Your task to perform on an android device: Go to battery settings Image 0: 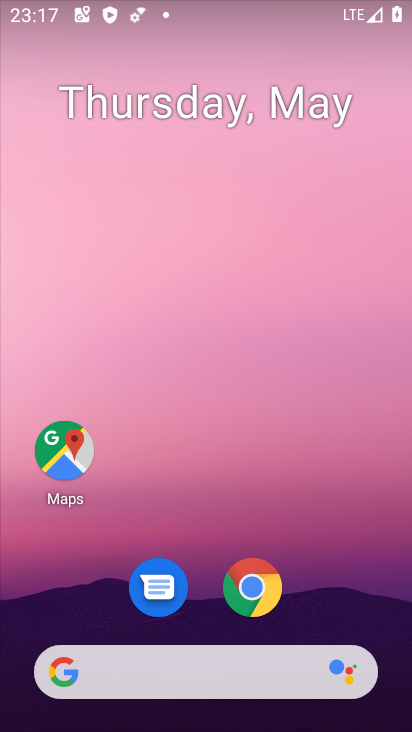
Step 0: drag from (80, 637) to (185, 142)
Your task to perform on an android device: Go to battery settings Image 1: 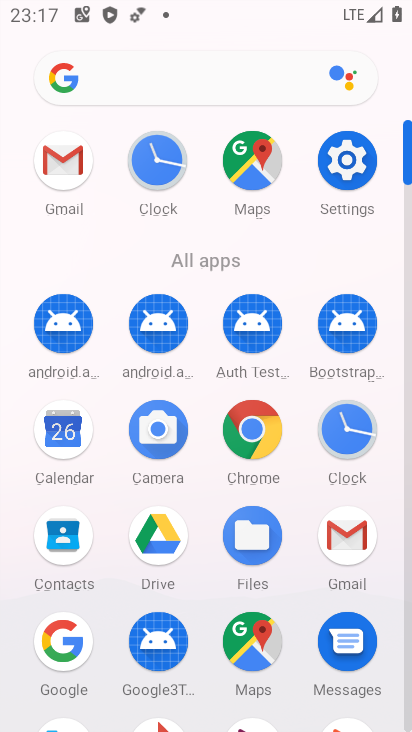
Step 1: drag from (95, 627) to (220, 219)
Your task to perform on an android device: Go to battery settings Image 2: 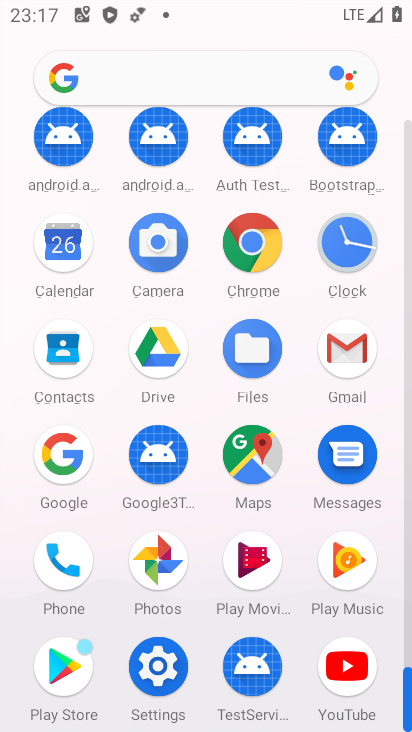
Step 2: click (195, 667)
Your task to perform on an android device: Go to battery settings Image 3: 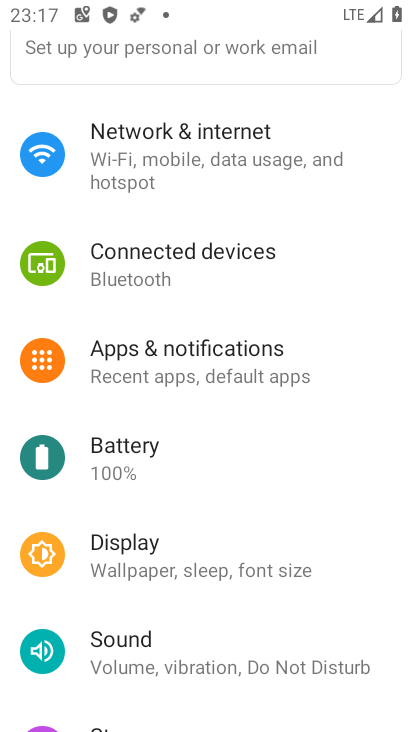
Step 3: click (153, 462)
Your task to perform on an android device: Go to battery settings Image 4: 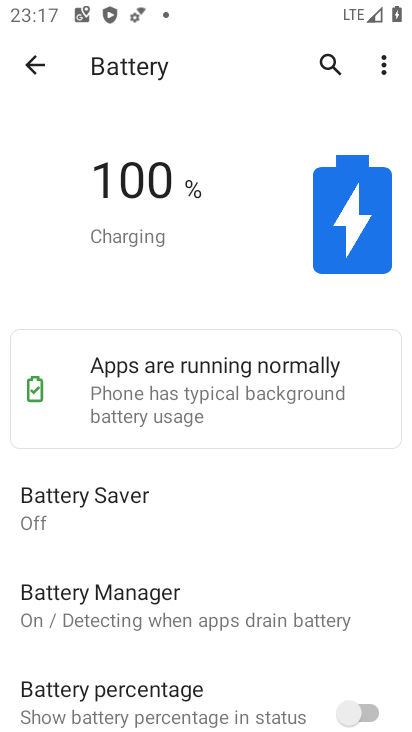
Step 4: task complete